Your task to perform on an android device: turn on priority inbox in the gmail app Image 0: 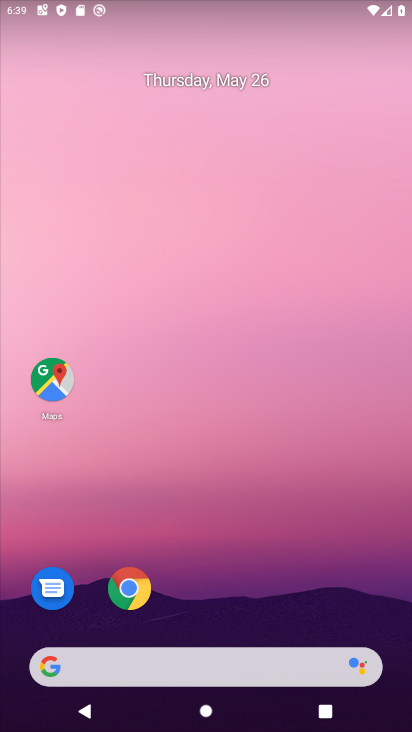
Step 0: drag from (351, 613) to (287, 34)
Your task to perform on an android device: turn on priority inbox in the gmail app Image 1: 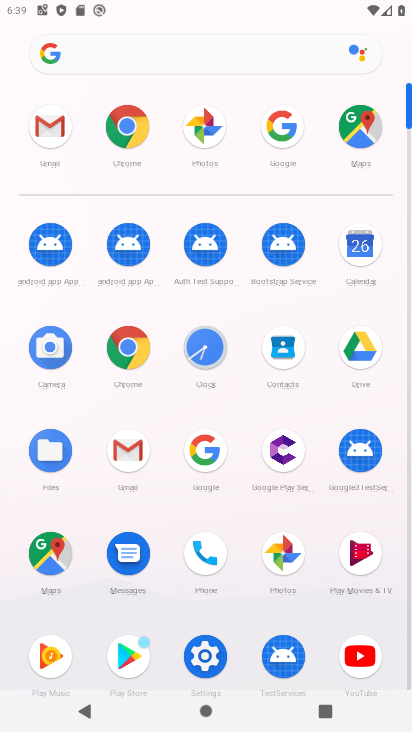
Step 1: click (130, 467)
Your task to perform on an android device: turn on priority inbox in the gmail app Image 2: 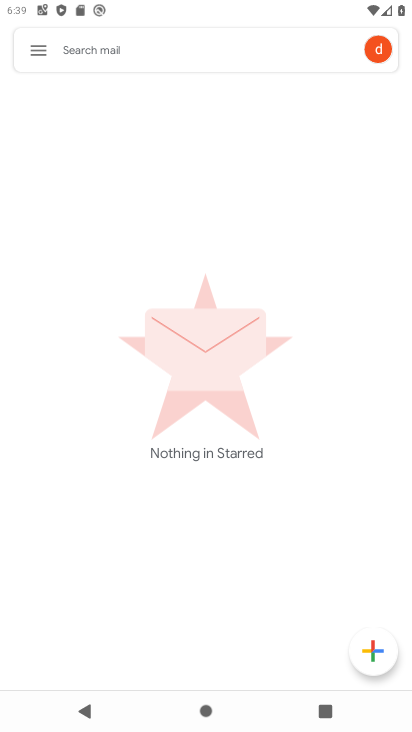
Step 2: click (34, 52)
Your task to perform on an android device: turn on priority inbox in the gmail app Image 3: 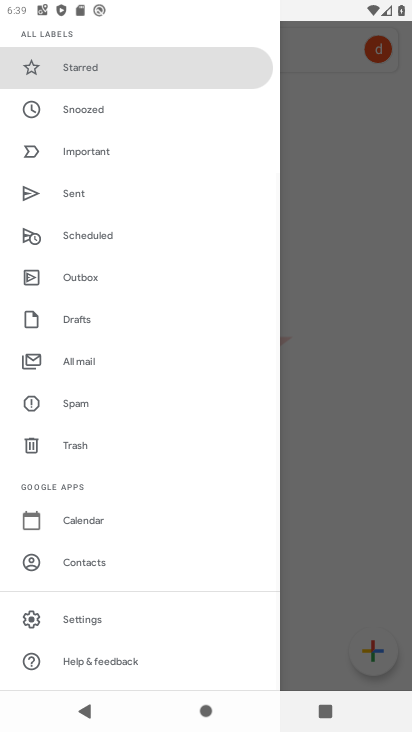
Step 3: click (100, 622)
Your task to perform on an android device: turn on priority inbox in the gmail app Image 4: 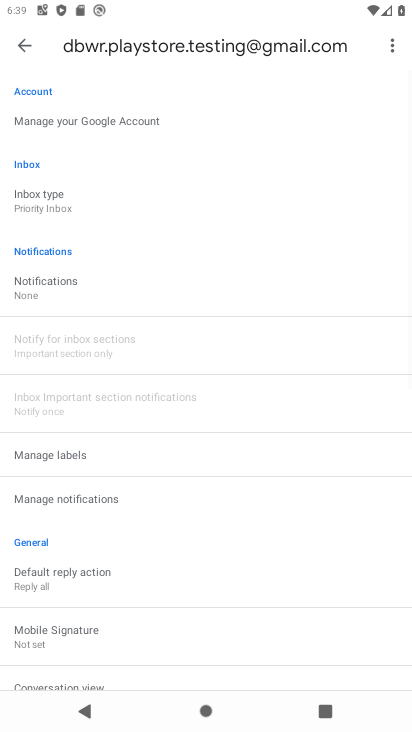
Step 4: click (113, 197)
Your task to perform on an android device: turn on priority inbox in the gmail app Image 5: 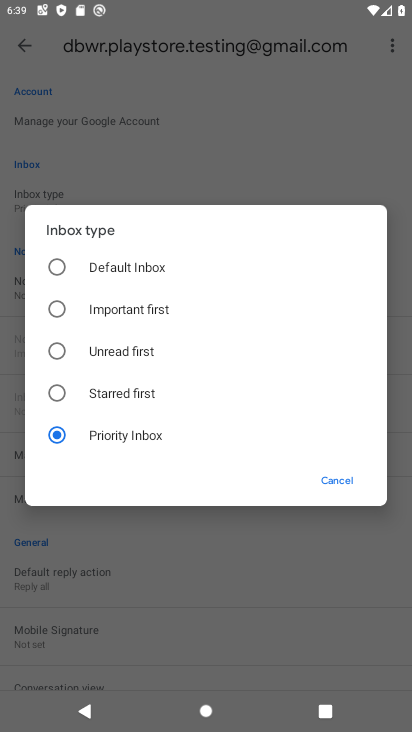
Step 5: click (114, 431)
Your task to perform on an android device: turn on priority inbox in the gmail app Image 6: 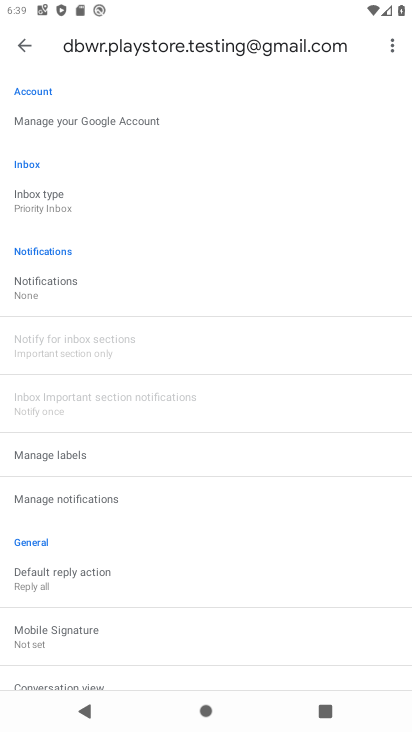
Step 6: task complete